Your task to perform on an android device: Play the last video I watched on Youtube Image 0: 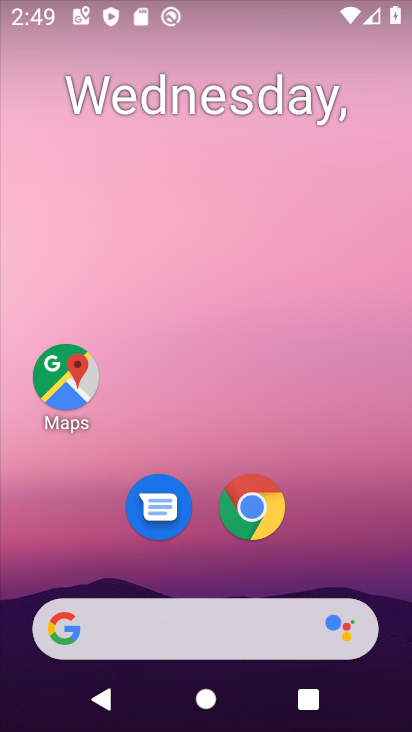
Step 0: drag from (348, 498) to (326, 341)
Your task to perform on an android device: Play the last video I watched on Youtube Image 1: 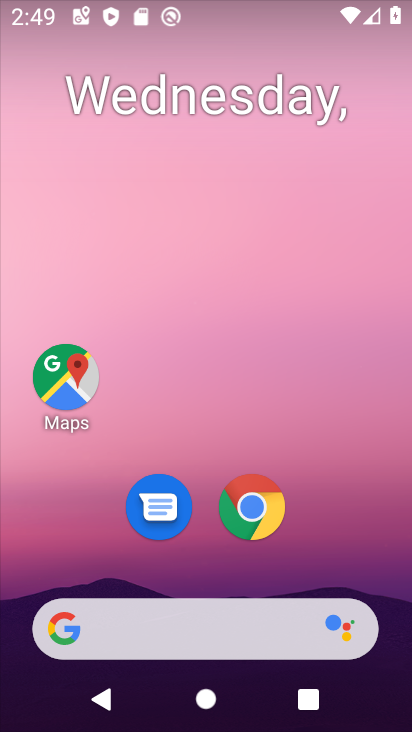
Step 1: drag from (318, 518) to (373, 113)
Your task to perform on an android device: Play the last video I watched on Youtube Image 2: 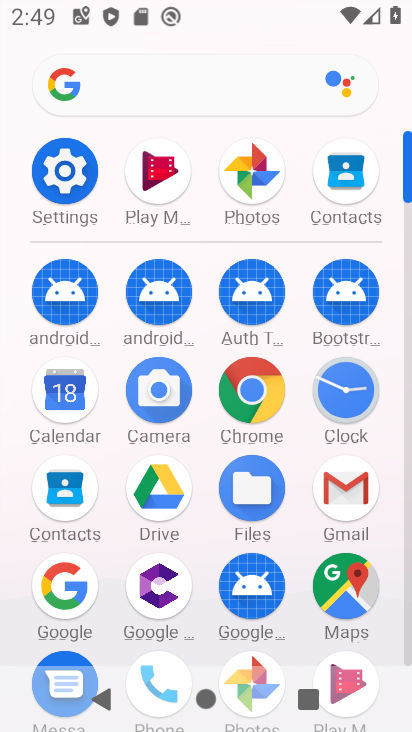
Step 2: drag from (284, 554) to (284, 154)
Your task to perform on an android device: Play the last video I watched on Youtube Image 3: 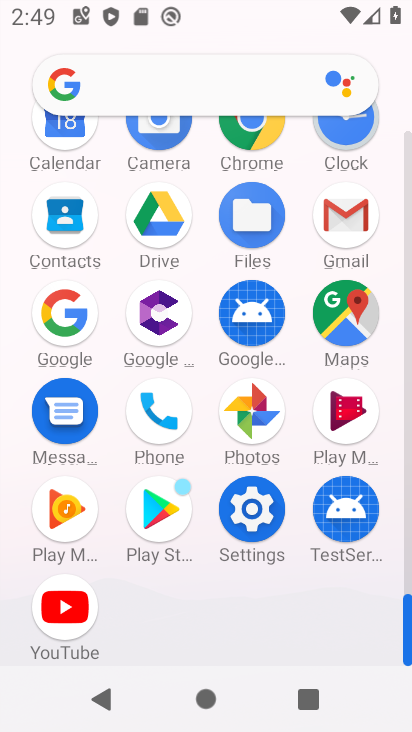
Step 3: click (52, 612)
Your task to perform on an android device: Play the last video I watched on Youtube Image 4: 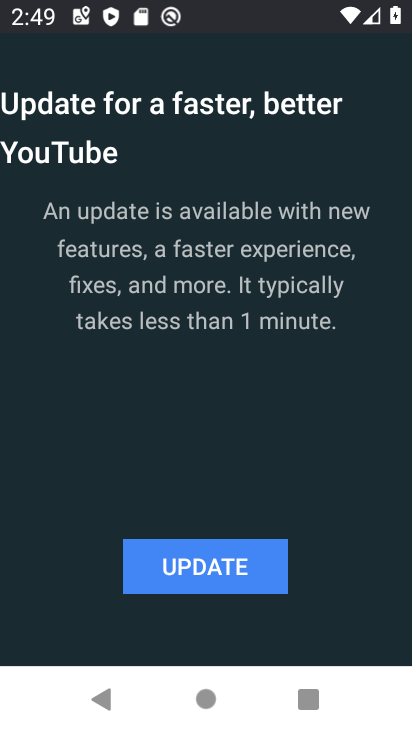
Step 4: click (172, 565)
Your task to perform on an android device: Play the last video I watched on Youtube Image 5: 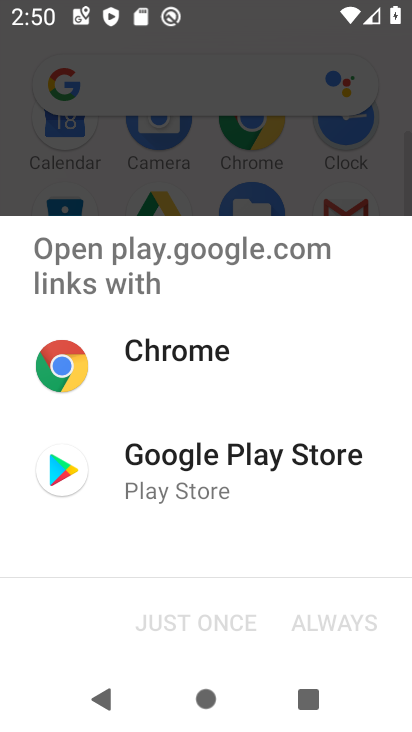
Step 5: click (148, 356)
Your task to perform on an android device: Play the last video I watched on Youtube Image 6: 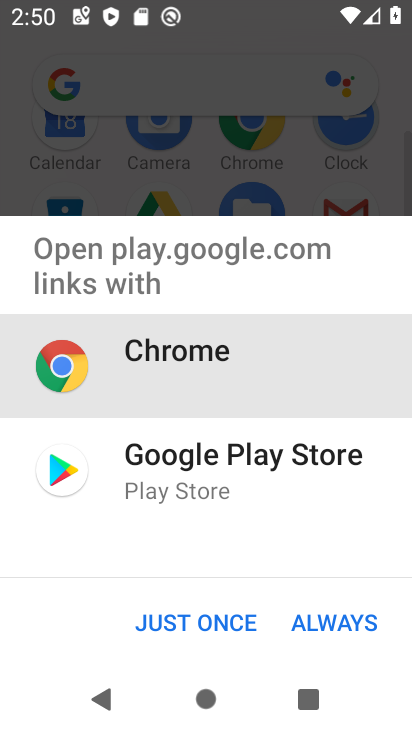
Step 6: click (353, 617)
Your task to perform on an android device: Play the last video I watched on Youtube Image 7: 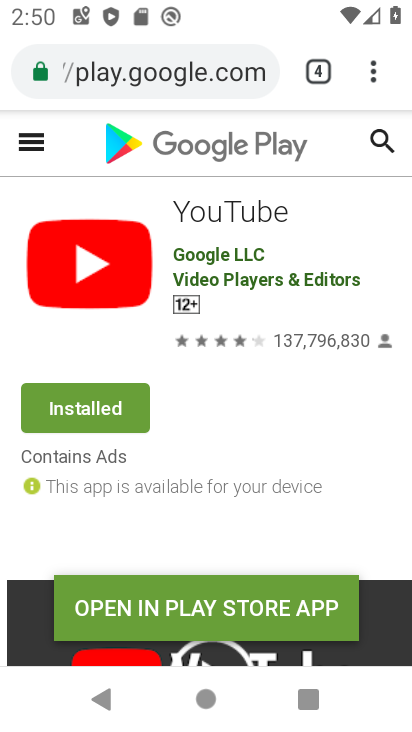
Step 7: click (78, 416)
Your task to perform on an android device: Play the last video I watched on Youtube Image 8: 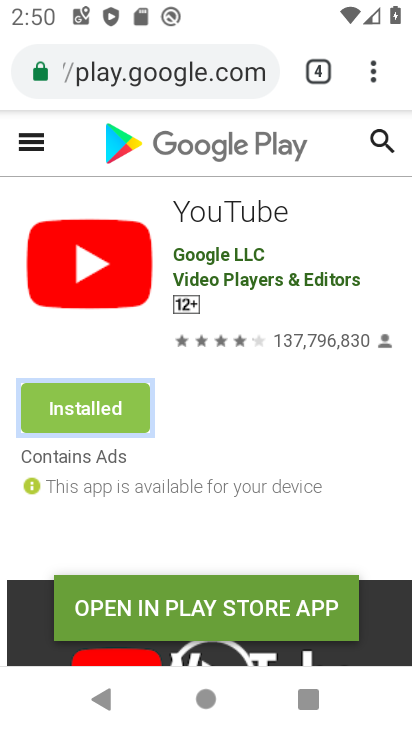
Step 8: click (78, 416)
Your task to perform on an android device: Play the last video I watched on Youtube Image 9: 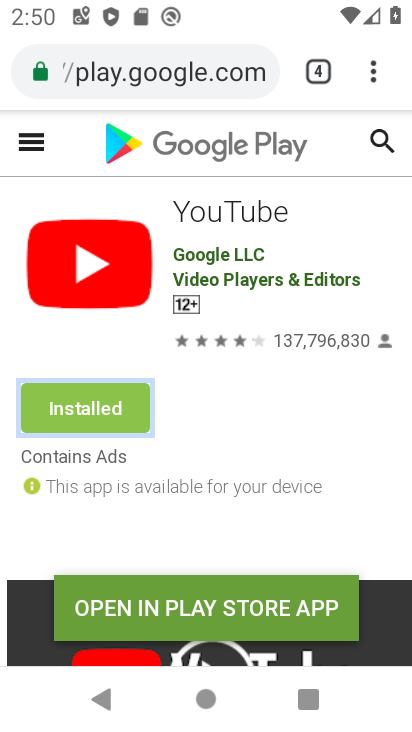
Step 9: click (287, 610)
Your task to perform on an android device: Play the last video I watched on Youtube Image 10: 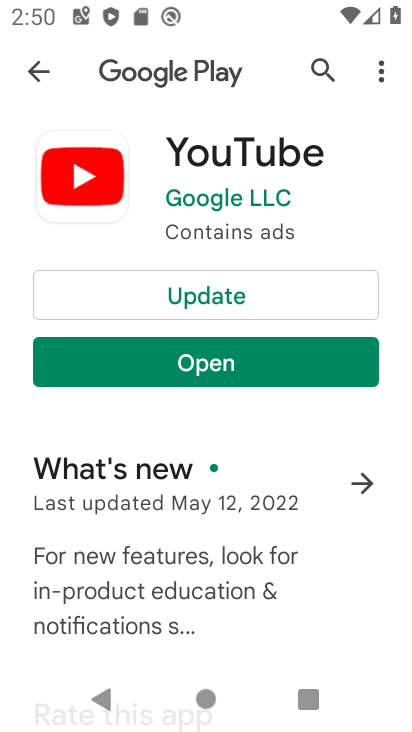
Step 10: click (219, 280)
Your task to perform on an android device: Play the last video I watched on Youtube Image 11: 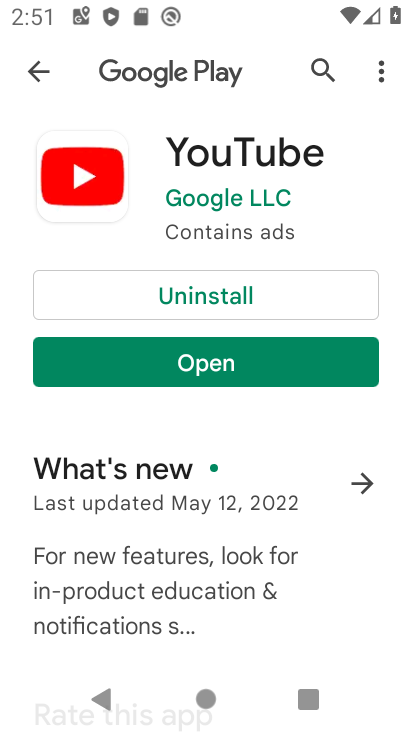
Step 11: click (210, 367)
Your task to perform on an android device: Play the last video I watched on Youtube Image 12: 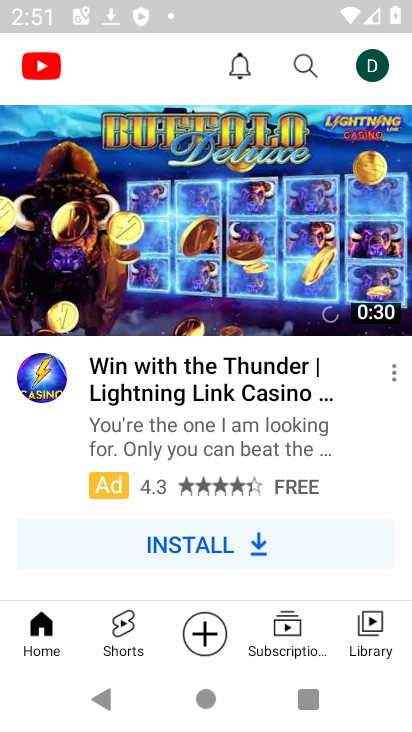
Step 12: click (383, 622)
Your task to perform on an android device: Play the last video I watched on Youtube Image 13: 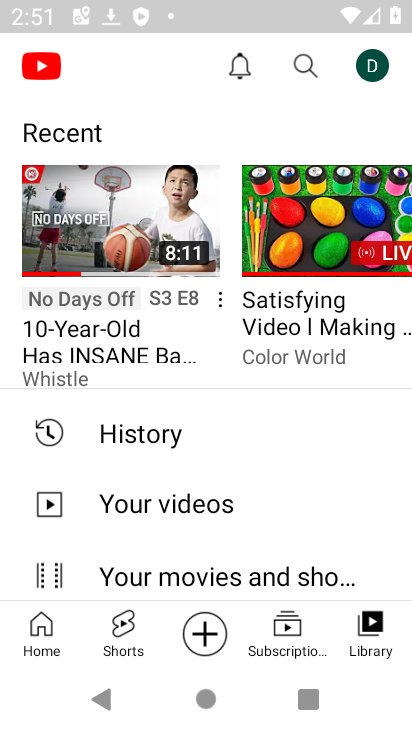
Step 13: click (117, 209)
Your task to perform on an android device: Play the last video I watched on Youtube Image 14: 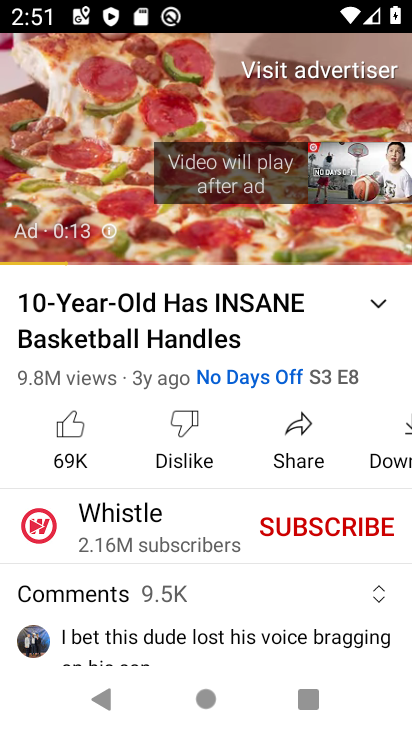
Step 14: click (138, 142)
Your task to perform on an android device: Play the last video I watched on Youtube Image 15: 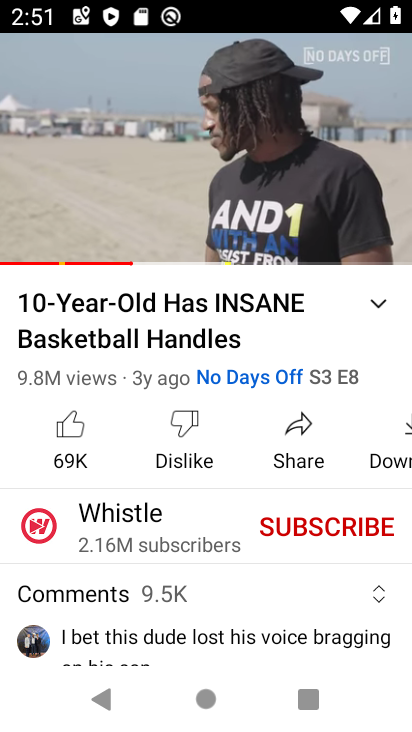
Step 15: task complete